Your task to perform on an android device: Open the calendar app, open the side menu, and click the "Day" option Image 0: 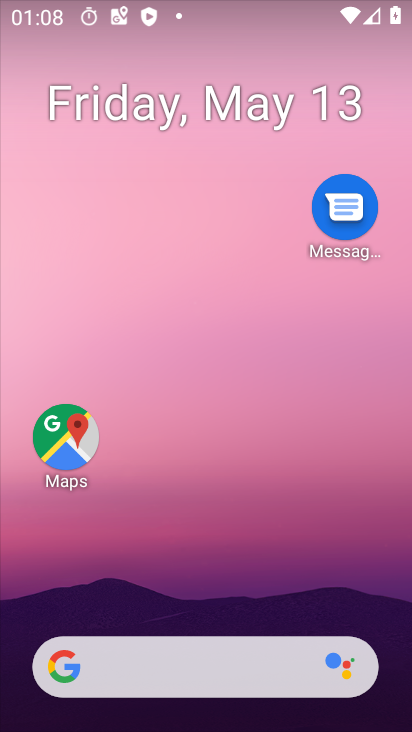
Step 0: drag from (280, 569) to (320, 141)
Your task to perform on an android device: Open the calendar app, open the side menu, and click the "Day" option Image 1: 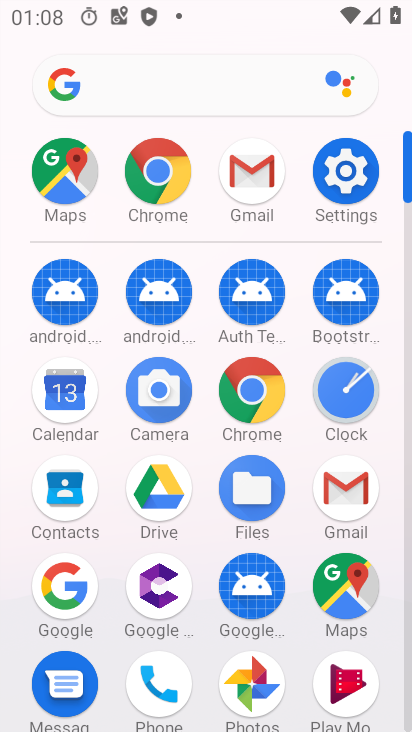
Step 1: click (79, 384)
Your task to perform on an android device: Open the calendar app, open the side menu, and click the "Day" option Image 2: 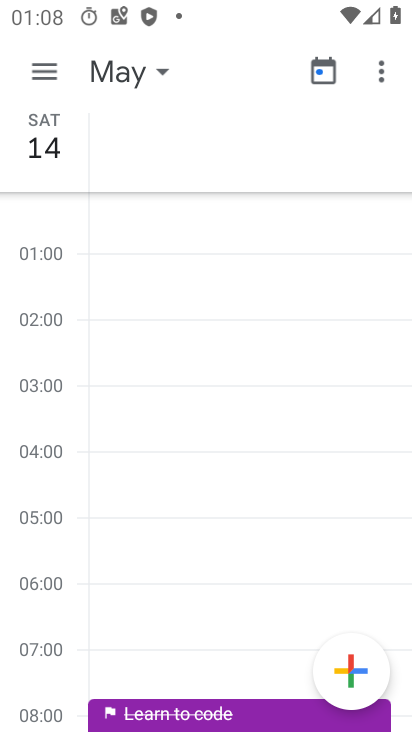
Step 2: click (46, 71)
Your task to perform on an android device: Open the calendar app, open the side menu, and click the "Day" option Image 3: 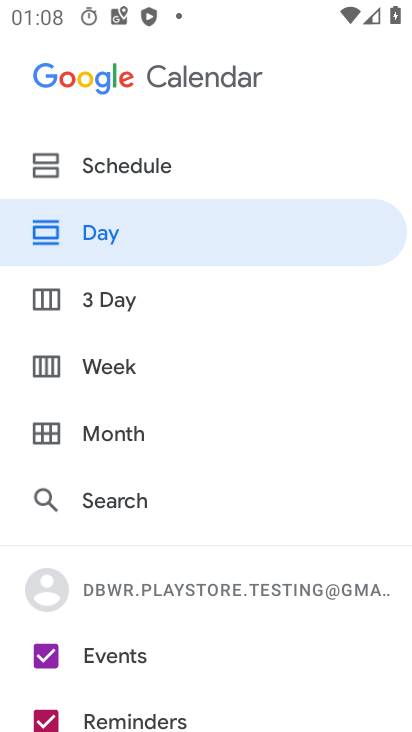
Step 3: click (85, 239)
Your task to perform on an android device: Open the calendar app, open the side menu, and click the "Day" option Image 4: 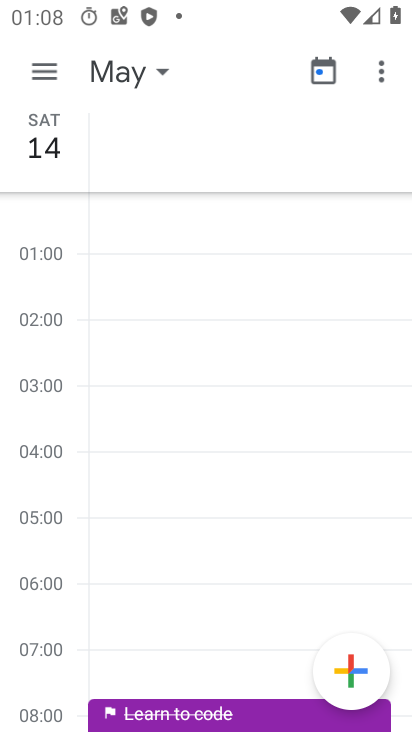
Step 4: task complete